Your task to perform on an android device: Turn on the flashlight Image 0: 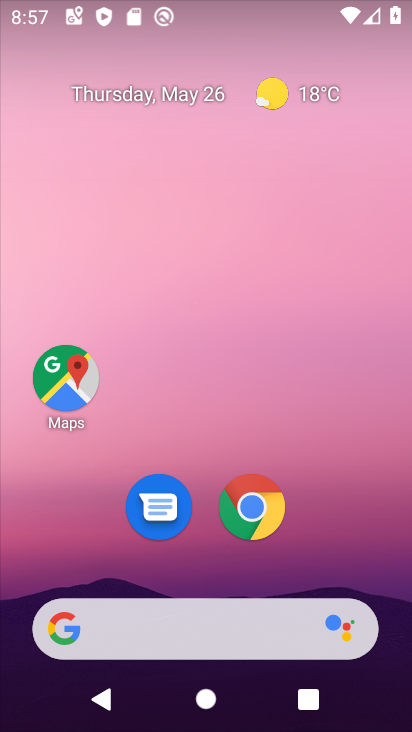
Step 0: press home button
Your task to perform on an android device: Turn on the flashlight Image 1: 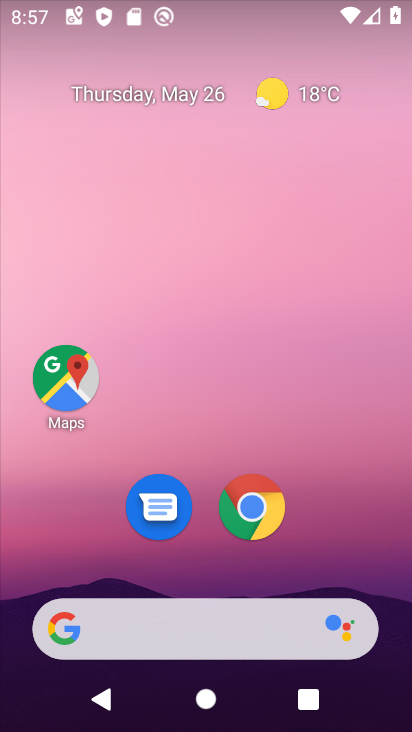
Step 1: drag from (293, 624) to (283, 113)
Your task to perform on an android device: Turn on the flashlight Image 2: 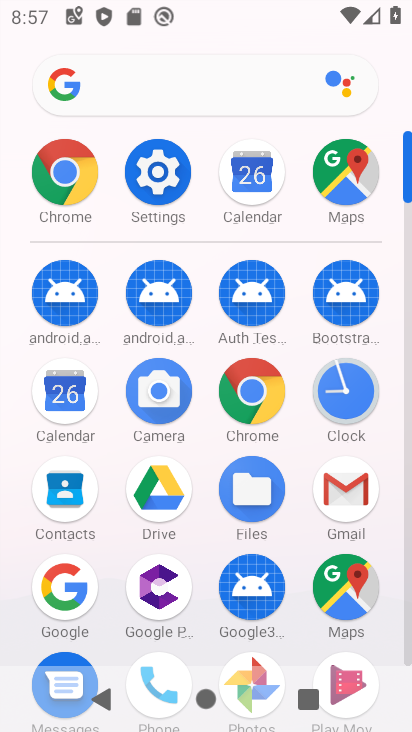
Step 2: click (170, 179)
Your task to perform on an android device: Turn on the flashlight Image 3: 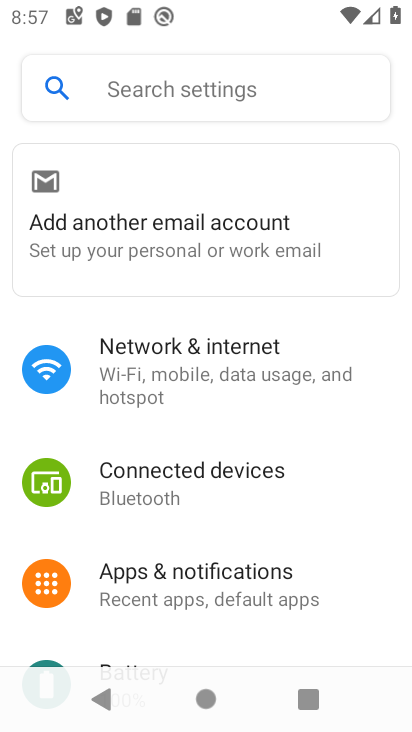
Step 3: click (195, 75)
Your task to perform on an android device: Turn on the flashlight Image 4: 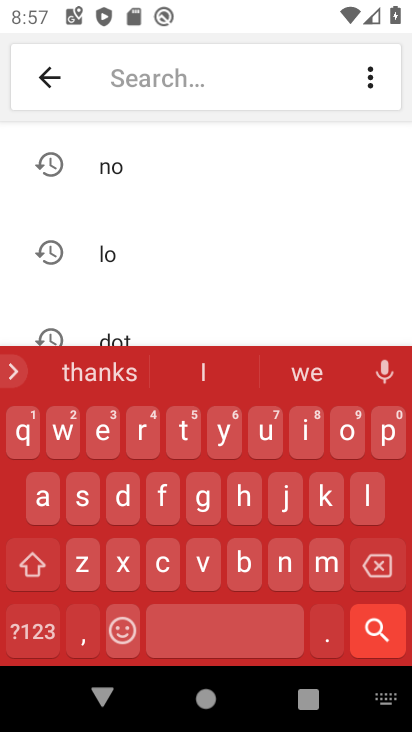
Step 4: click (170, 498)
Your task to perform on an android device: Turn on the flashlight Image 5: 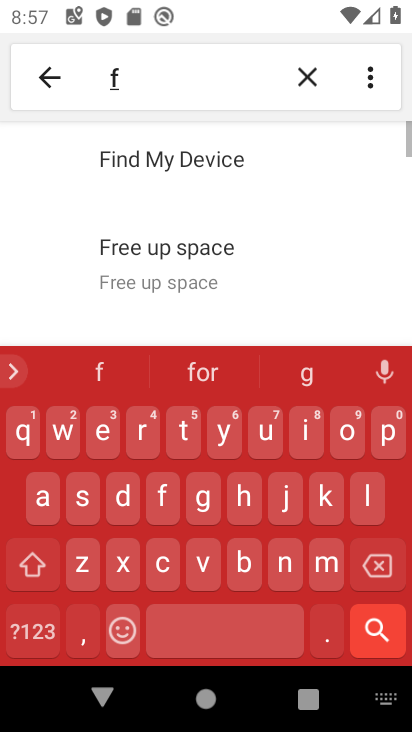
Step 5: click (373, 501)
Your task to perform on an android device: Turn on the flashlight Image 6: 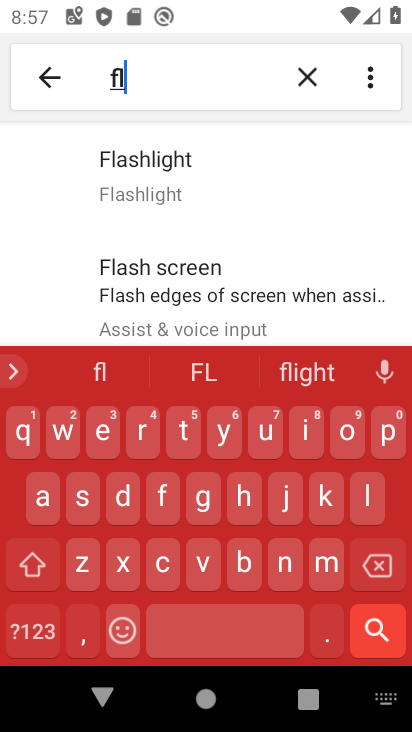
Step 6: click (161, 148)
Your task to perform on an android device: Turn on the flashlight Image 7: 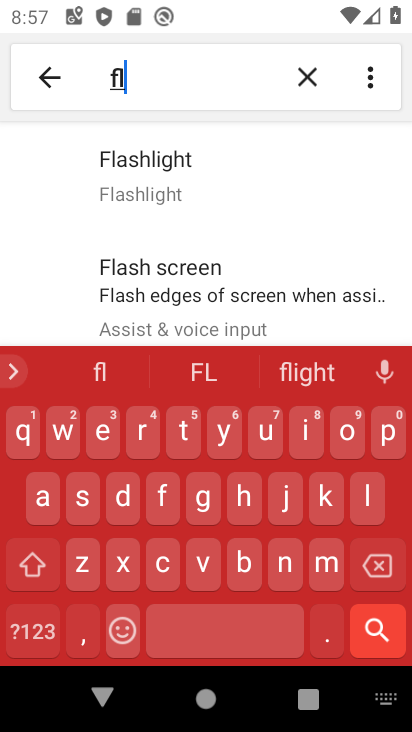
Step 7: task complete